Your task to perform on an android device: turn off airplane mode Image 0: 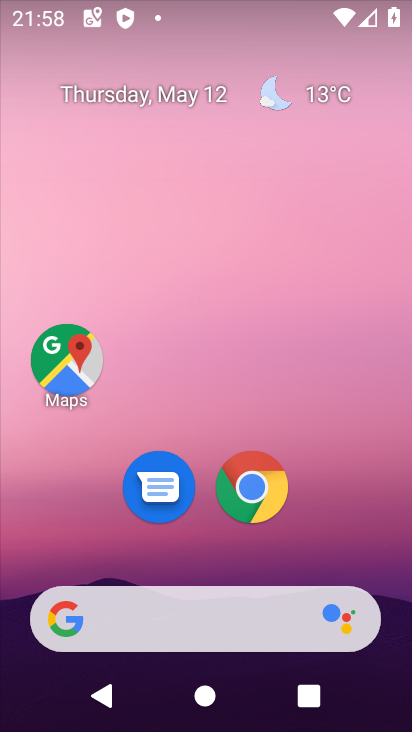
Step 0: drag from (213, 18) to (273, 617)
Your task to perform on an android device: turn off airplane mode Image 1: 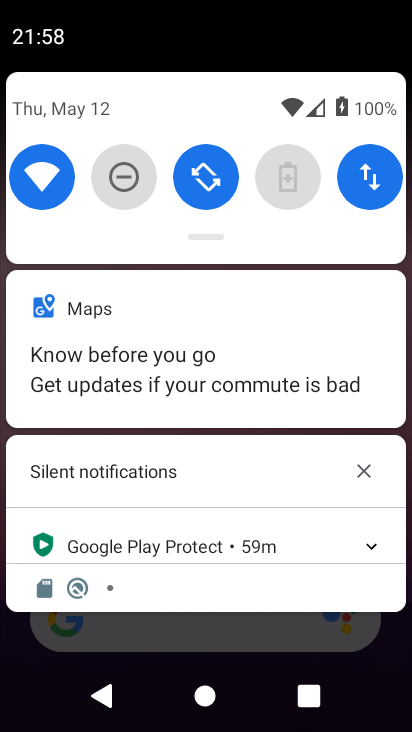
Step 1: task complete